Your task to perform on an android device: turn on bluetooth scan Image 0: 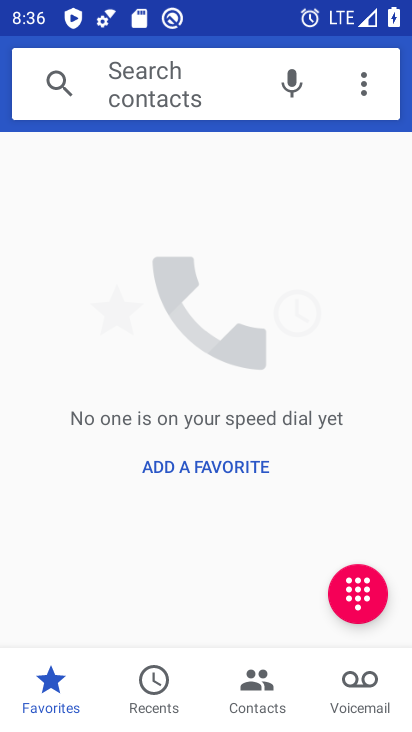
Step 0: press home button
Your task to perform on an android device: turn on bluetooth scan Image 1: 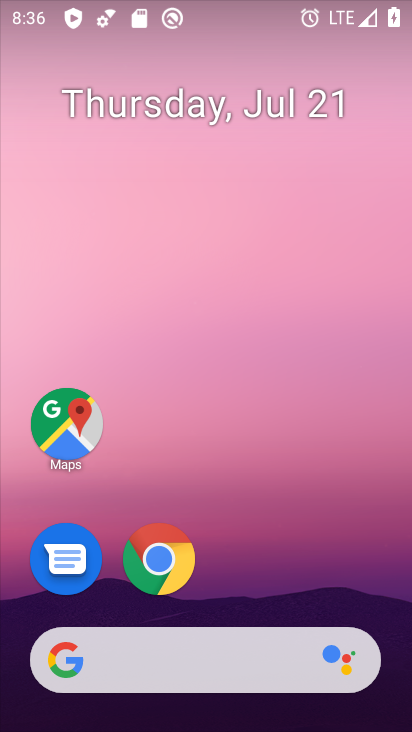
Step 1: drag from (373, 552) to (382, 83)
Your task to perform on an android device: turn on bluetooth scan Image 2: 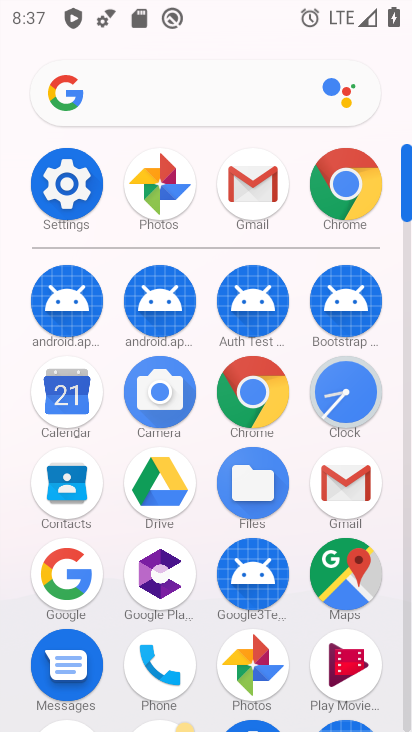
Step 2: click (66, 187)
Your task to perform on an android device: turn on bluetooth scan Image 3: 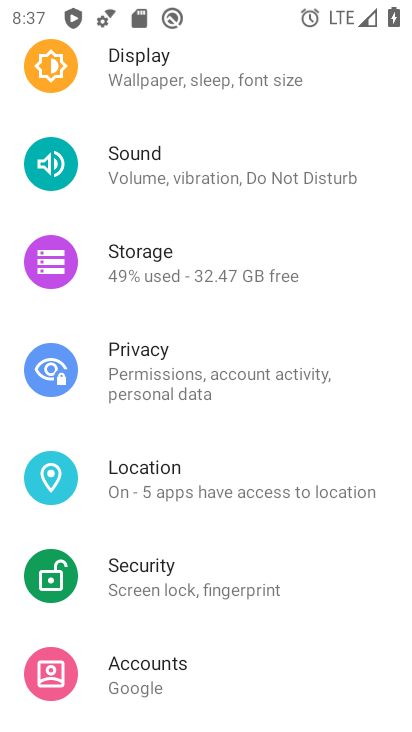
Step 3: drag from (374, 217) to (376, 315)
Your task to perform on an android device: turn on bluetooth scan Image 4: 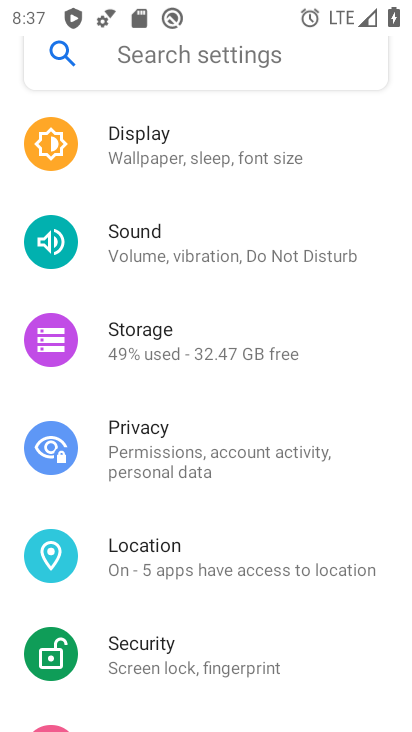
Step 4: drag from (377, 178) to (375, 290)
Your task to perform on an android device: turn on bluetooth scan Image 5: 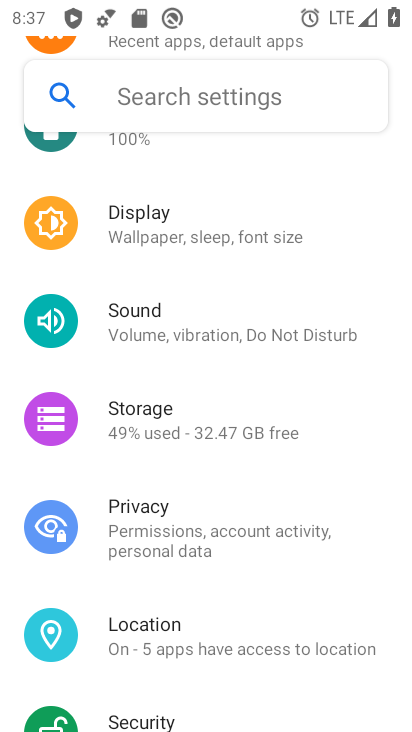
Step 5: drag from (378, 192) to (377, 307)
Your task to perform on an android device: turn on bluetooth scan Image 6: 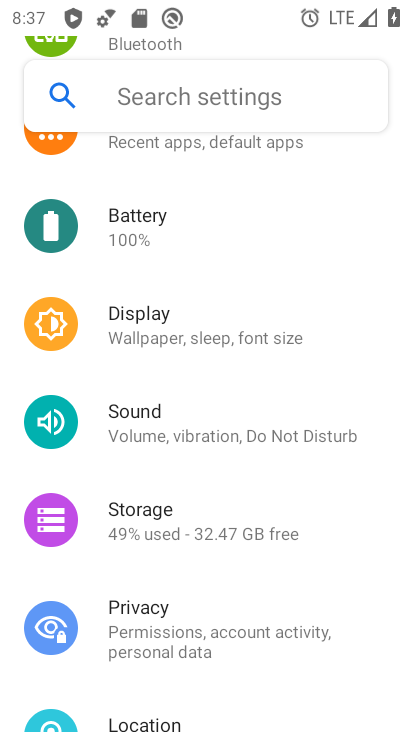
Step 6: drag from (358, 211) to (356, 329)
Your task to perform on an android device: turn on bluetooth scan Image 7: 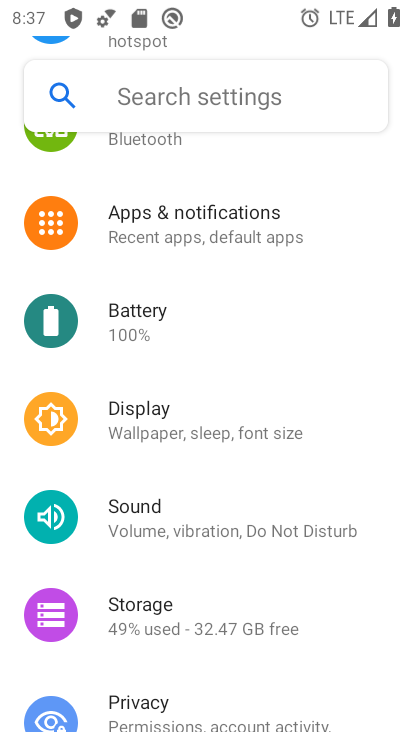
Step 7: drag from (346, 227) to (347, 336)
Your task to perform on an android device: turn on bluetooth scan Image 8: 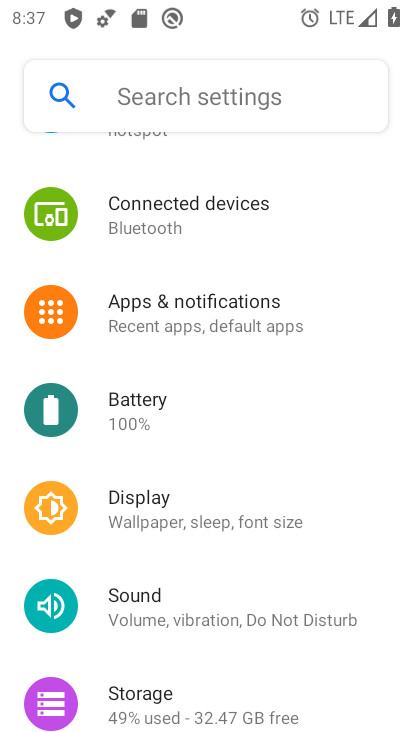
Step 8: drag from (342, 240) to (341, 400)
Your task to perform on an android device: turn on bluetooth scan Image 9: 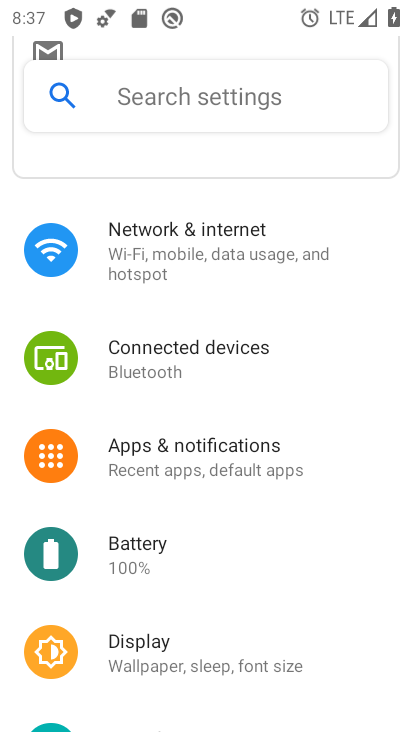
Step 9: drag from (349, 460) to (346, 377)
Your task to perform on an android device: turn on bluetooth scan Image 10: 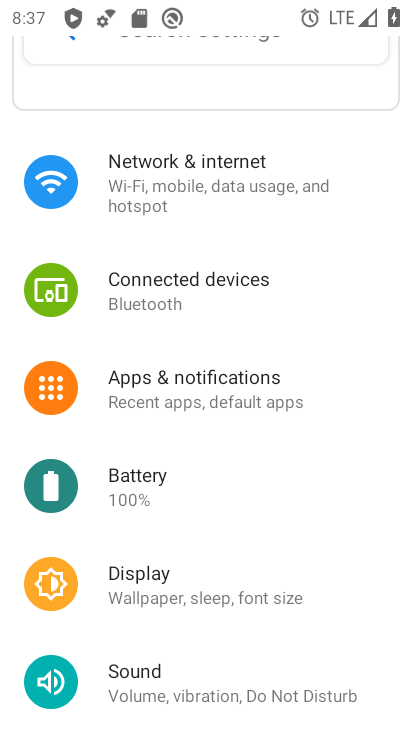
Step 10: drag from (351, 475) to (353, 380)
Your task to perform on an android device: turn on bluetooth scan Image 11: 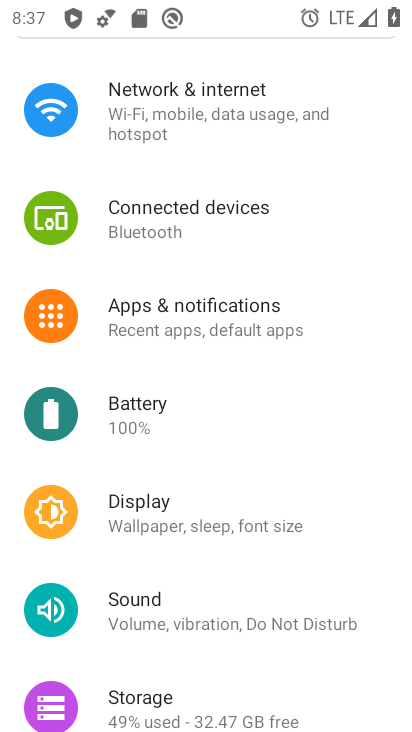
Step 11: drag from (336, 489) to (346, 381)
Your task to perform on an android device: turn on bluetooth scan Image 12: 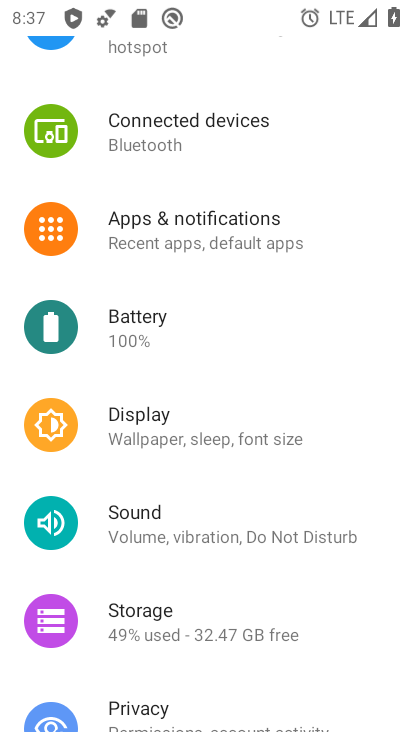
Step 12: drag from (352, 501) to (353, 374)
Your task to perform on an android device: turn on bluetooth scan Image 13: 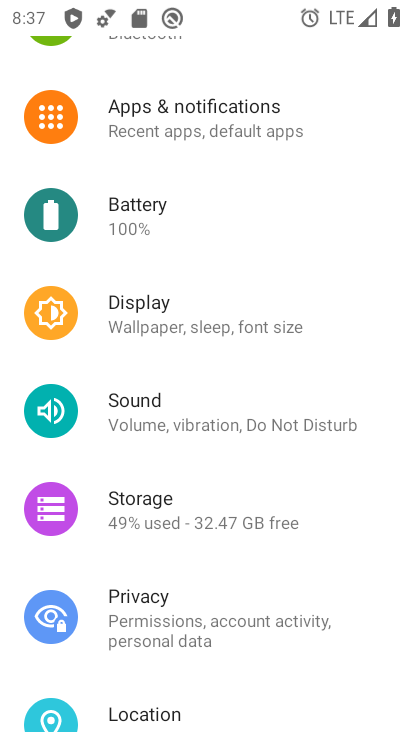
Step 13: drag from (358, 499) to (349, 351)
Your task to perform on an android device: turn on bluetooth scan Image 14: 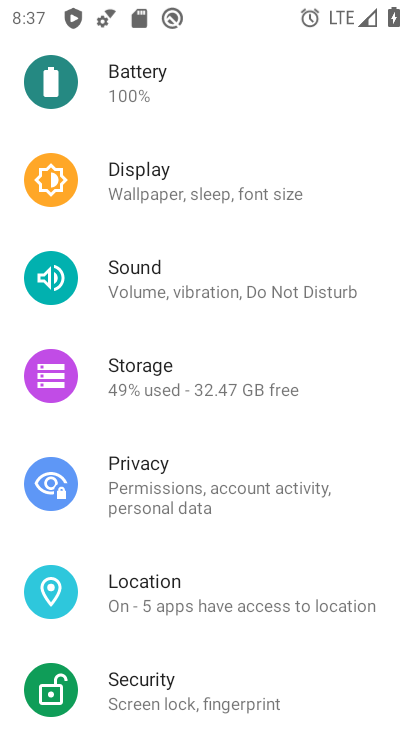
Step 14: drag from (354, 523) to (350, 297)
Your task to perform on an android device: turn on bluetooth scan Image 15: 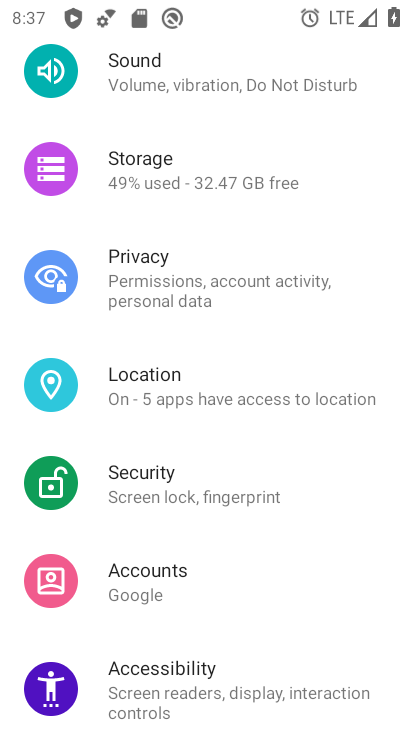
Step 15: click (345, 404)
Your task to perform on an android device: turn on bluetooth scan Image 16: 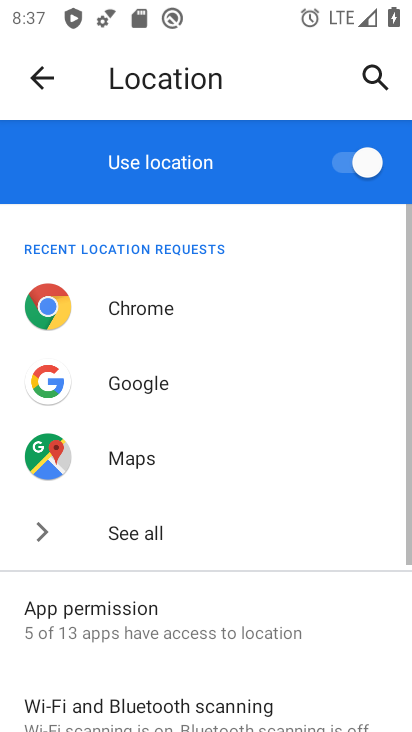
Step 16: drag from (311, 552) to (329, 450)
Your task to perform on an android device: turn on bluetooth scan Image 17: 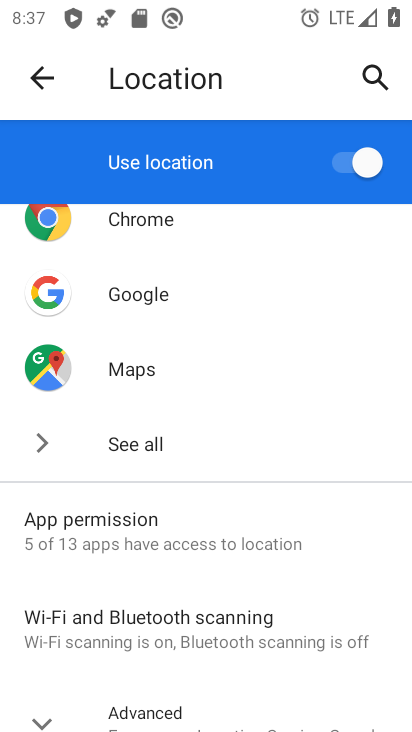
Step 17: drag from (340, 615) to (341, 401)
Your task to perform on an android device: turn on bluetooth scan Image 18: 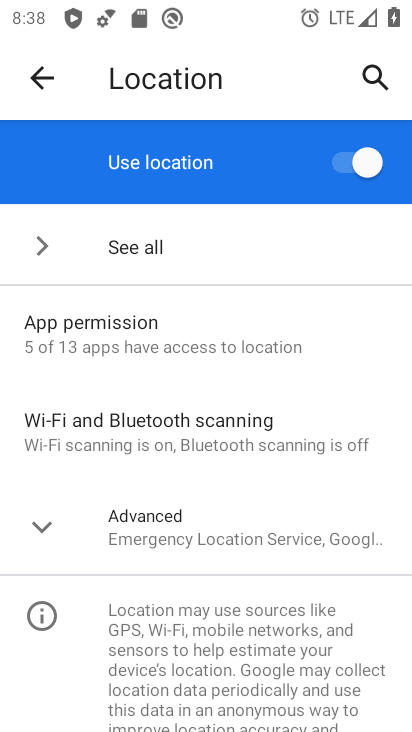
Step 18: click (321, 454)
Your task to perform on an android device: turn on bluetooth scan Image 19: 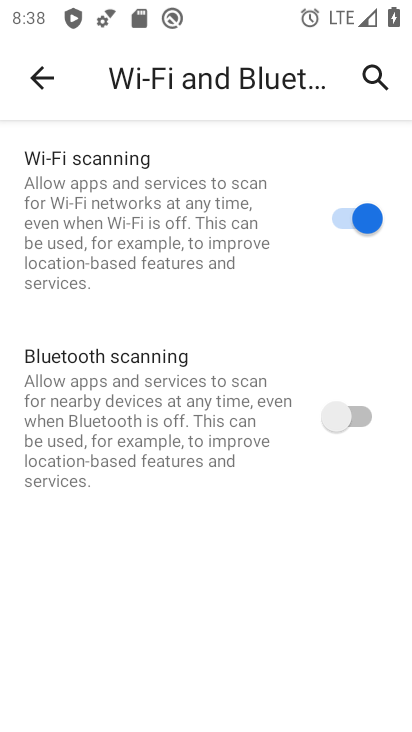
Step 19: click (336, 423)
Your task to perform on an android device: turn on bluetooth scan Image 20: 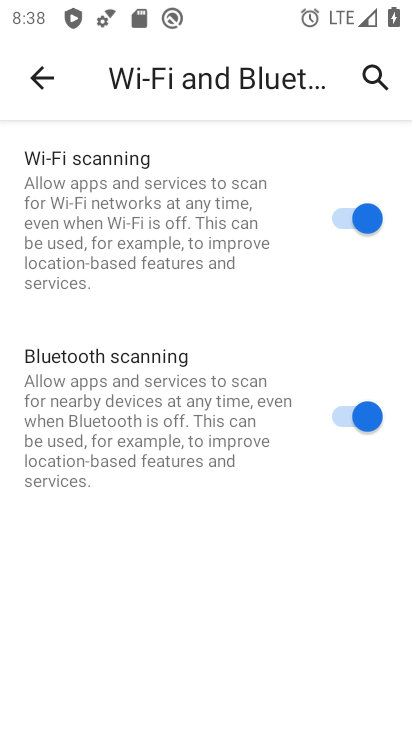
Step 20: task complete